Your task to perform on an android device: check android version Image 0: 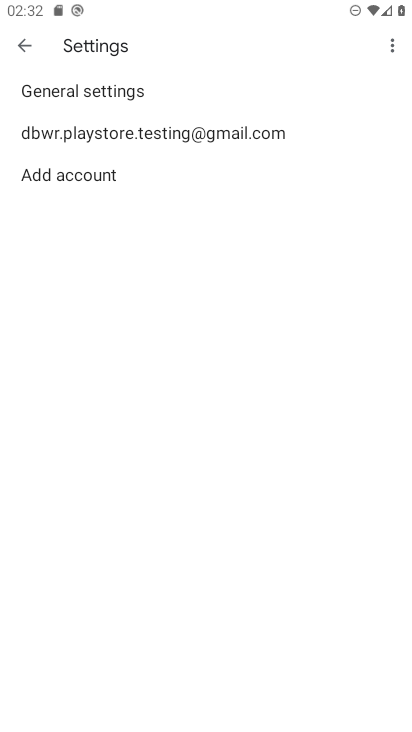
Step 0: press home button
Your task to perform on an android device: check android version Image 1: 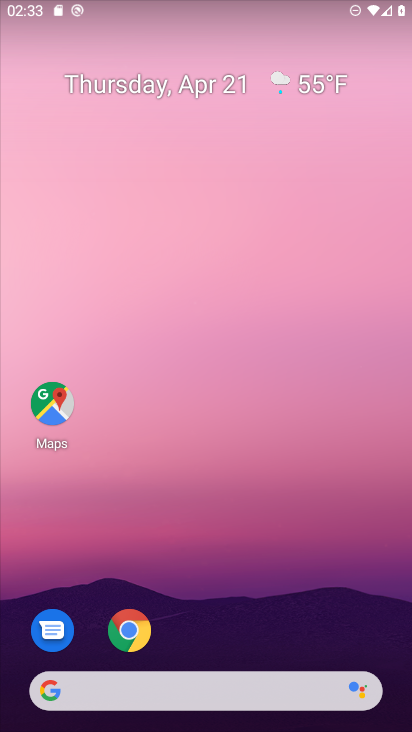
Step 1: drag from (286, 613) to (353, 12)
Your task to perform on an android device: check android version Image 2: 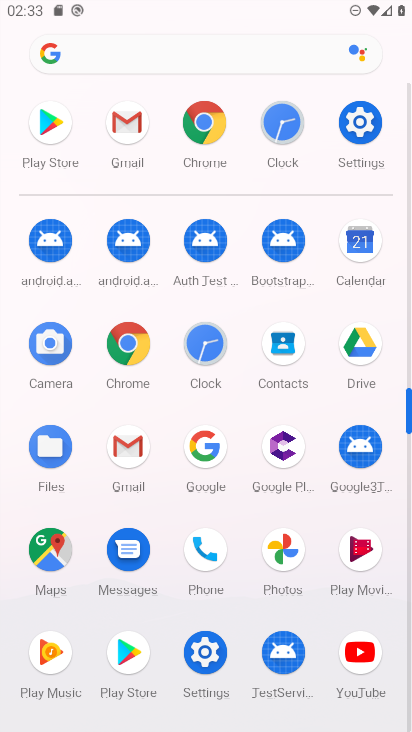
Step 2: click (222, 640)
Your task to perform on an android device: check android version Image 3: 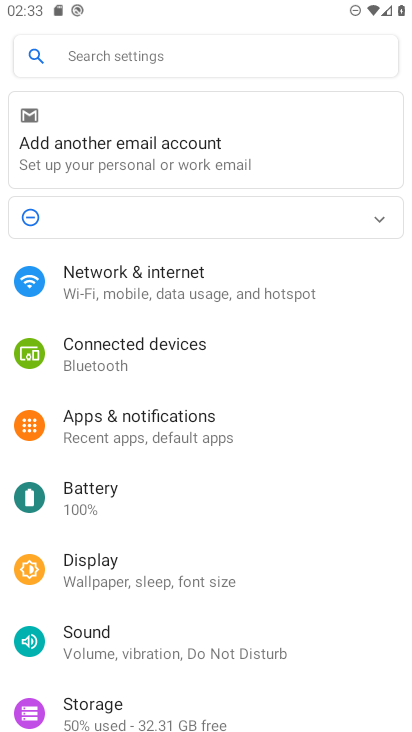
Step 3: drag from (251, 665) to (250, 242)
Your task to perform on an android device: check android version Image 4: 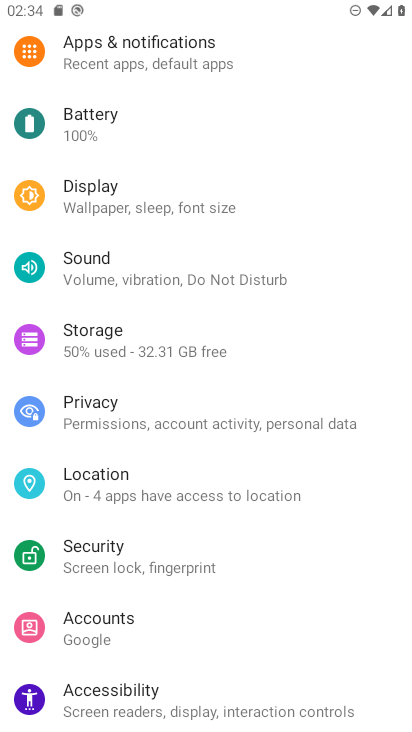
Step 4: drag from (185, 653) to (262, 255)
Your task to perform on an android device: check android version Image 5: 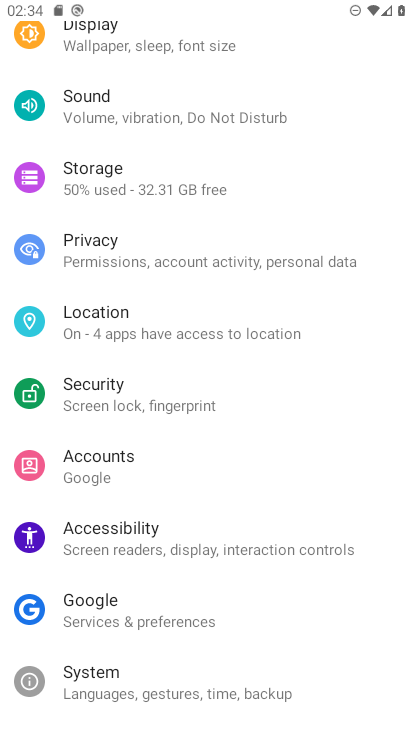
Step 5: drag from (188, 689) to (218, 526)
Your task to perform on an android device: check android version Image 6: 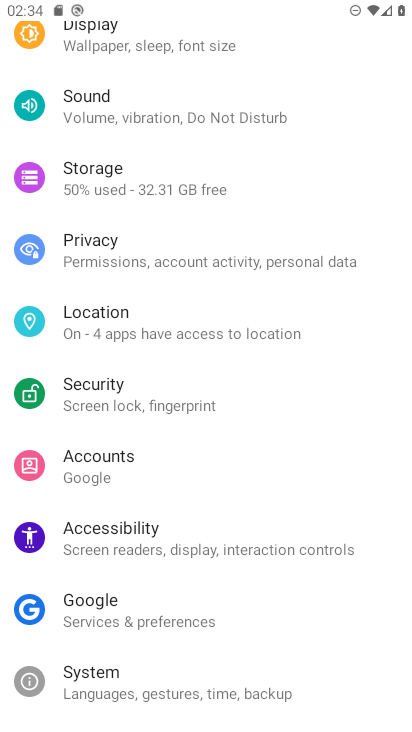
Step 6: click (189, 695)
Your task to perform on an android device: check android version Image 7: 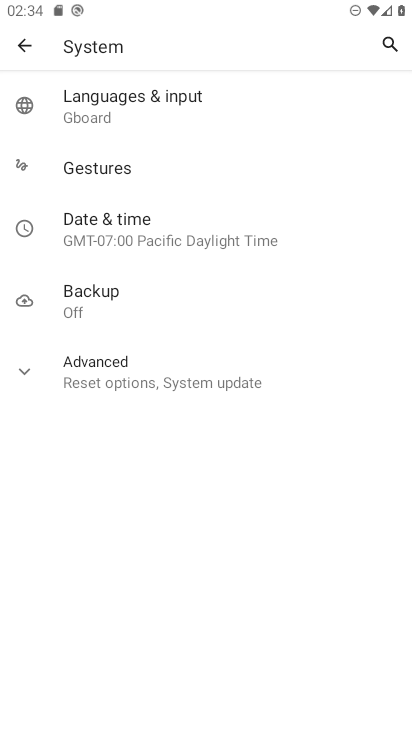
Step 7: click (13, 44)
Your task to perform on an android device: check android version Image 8: 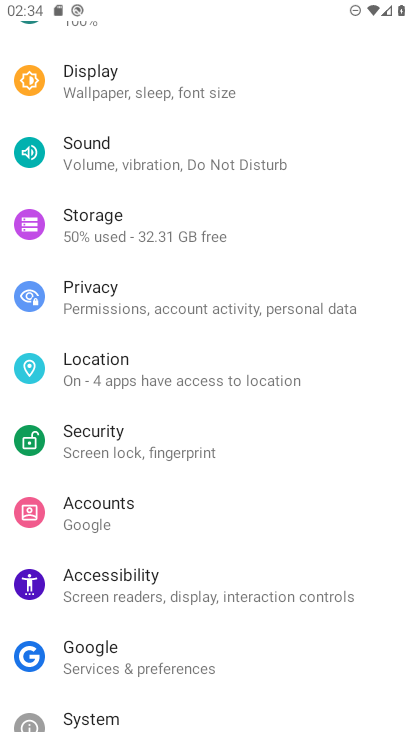
Step 8: drag from (169, 654) to (242, 65)
Your task to perform on an android device: check android version Image 9: 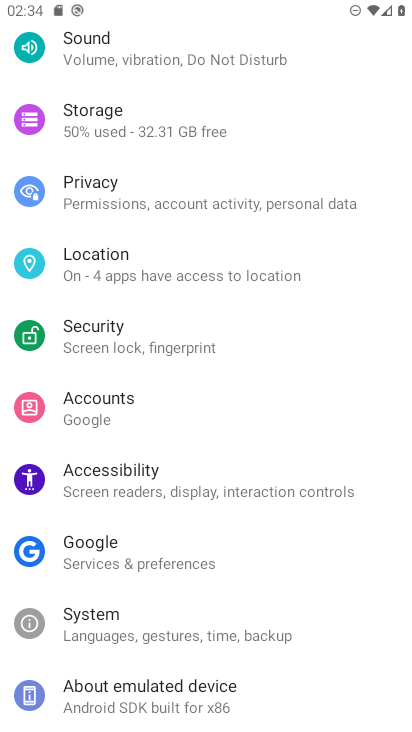
Step 9: click (210, 671)
Your task to perform on an android device: check android version Image 10: 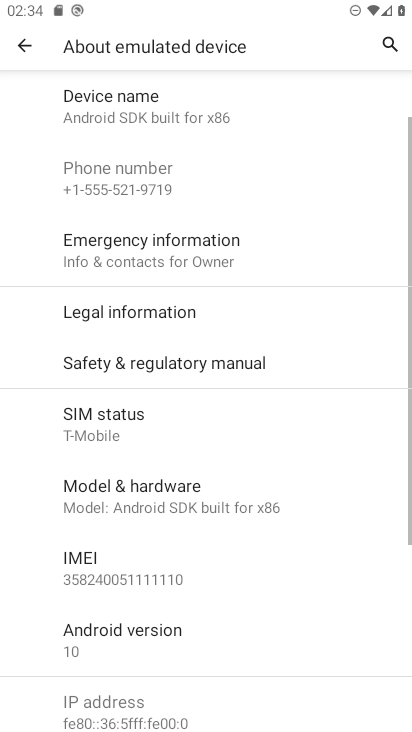
Step 10: click (170, 636)
Your task to perform on an android device: check android version Image 11: 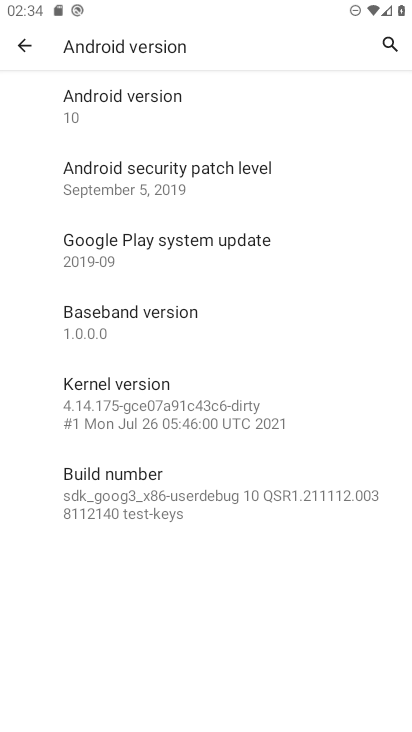
Step 11: task complete